Your task to perform on an android device: Go to eBay Image 0: 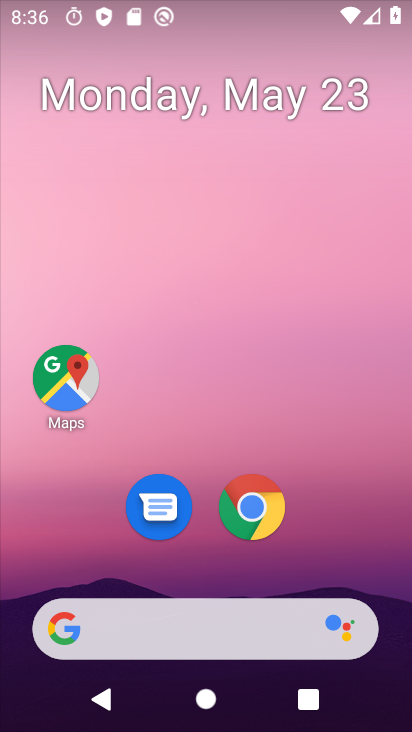
Step 0: click (245, 502)
Your task to perform on an android device: Go to eBay Image 1: 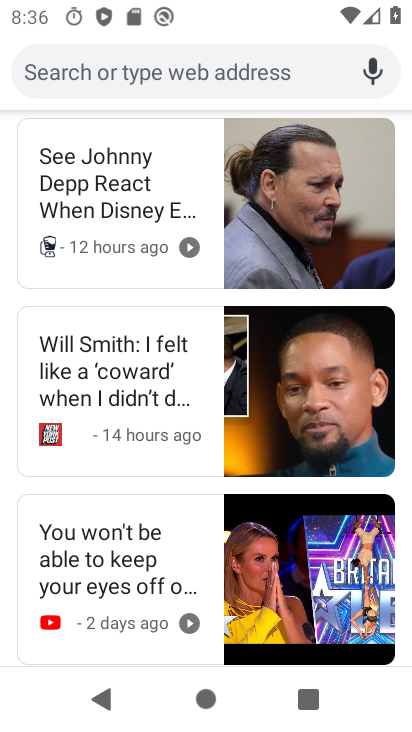
Step 1: drag from (141, 236) to (154, 593)
Your task to perform on an android device: Go to eBay Image 2: 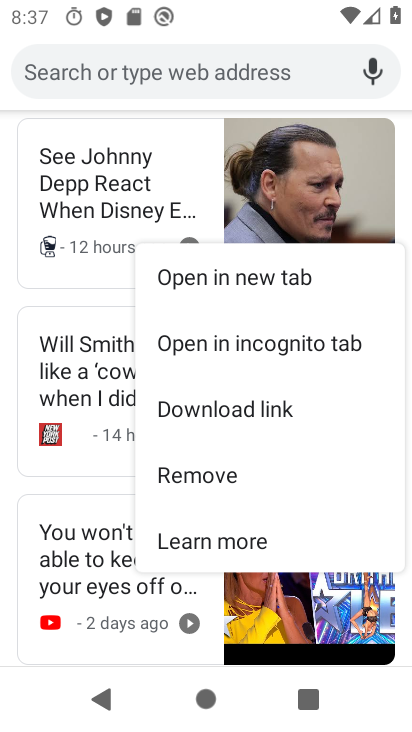
Step 2: drag from (132, 208) to (73, 617)
Your task to perform on an android device: Go to eBay Image 3: 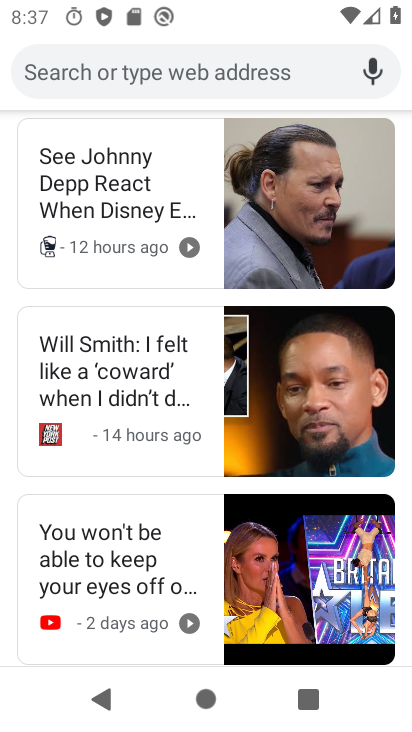
Step 3: drag from (26, 234) to (30, 603)
Your task to perform on an android device: Go to eBay Image 4: 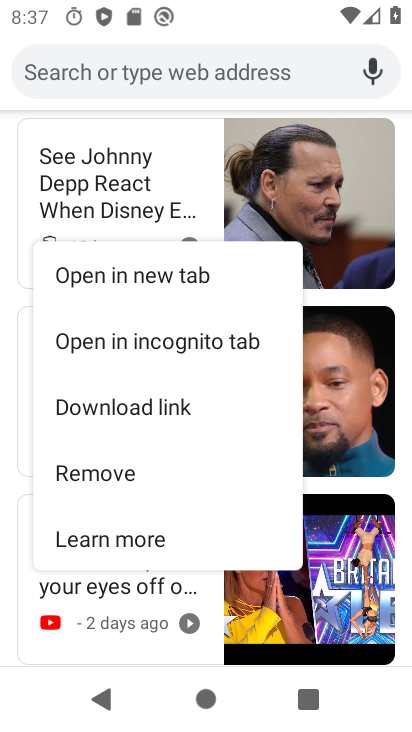
Step 4: click (160, 90)
Your task to perform on an android device: Go to eBay Image 5: 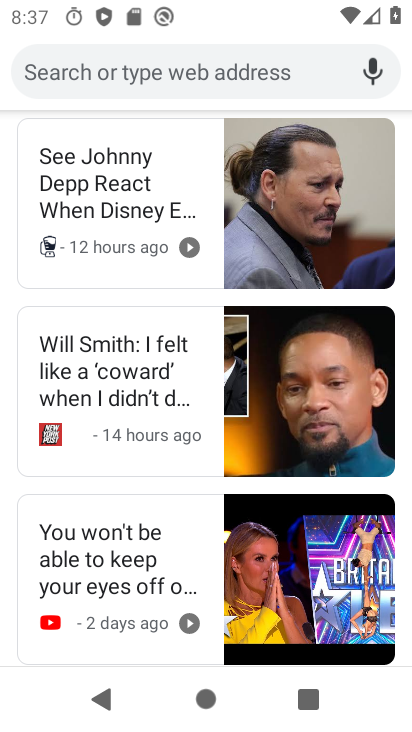
Step 5: click (169, 64)
Your task to perform on an android device: Go to eBay Image 6: 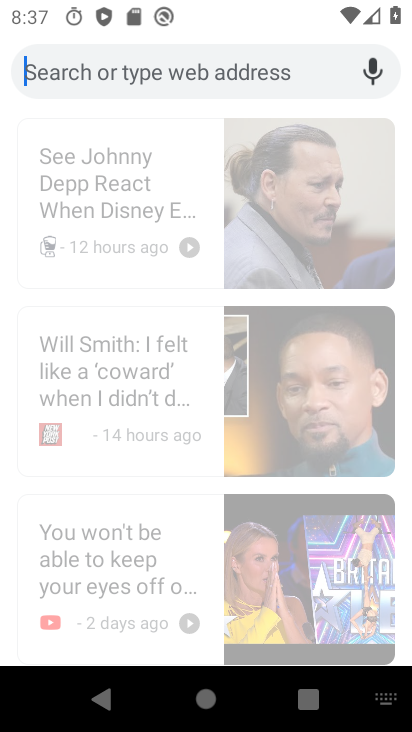
Step 6: type "ebay"
Your task to perform on an android device: Go to eBay Image 7: 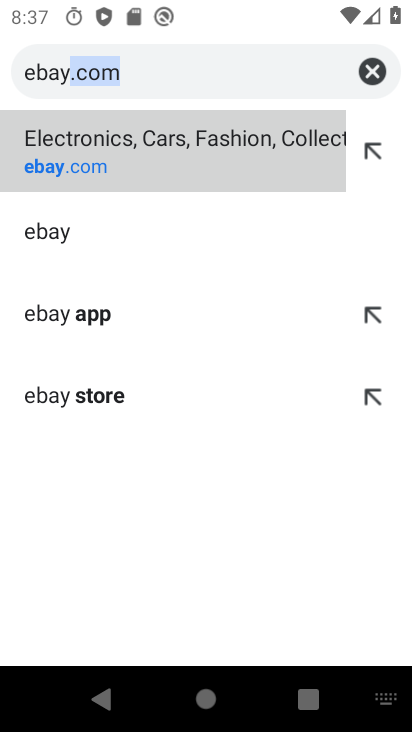
Step 7: click (45, 223)
Your task to perform on an android device: Go to eBay Image 8: 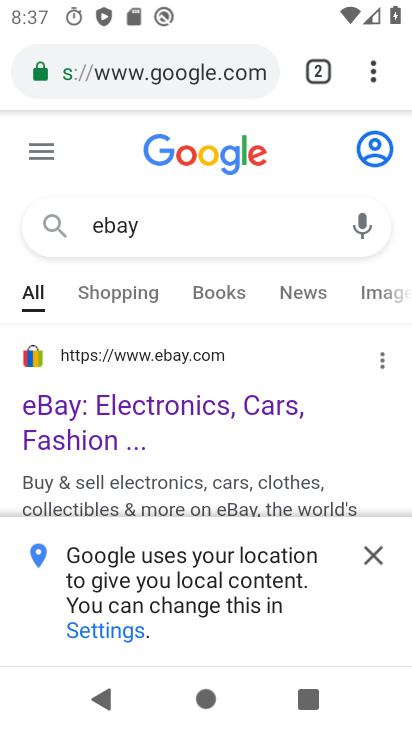
Step 8: click (104, 443)
Your task to perform on an android device: Go to eBay Image 9: 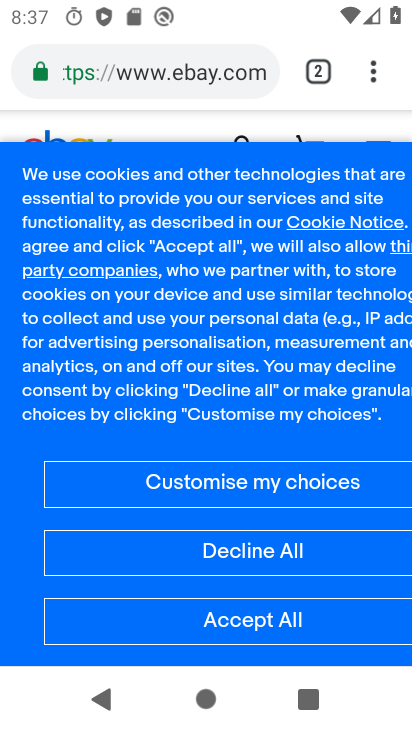
Step 9: task complete